Your task to perform on an android device: turn off smart reply in the gmail app Image 0: 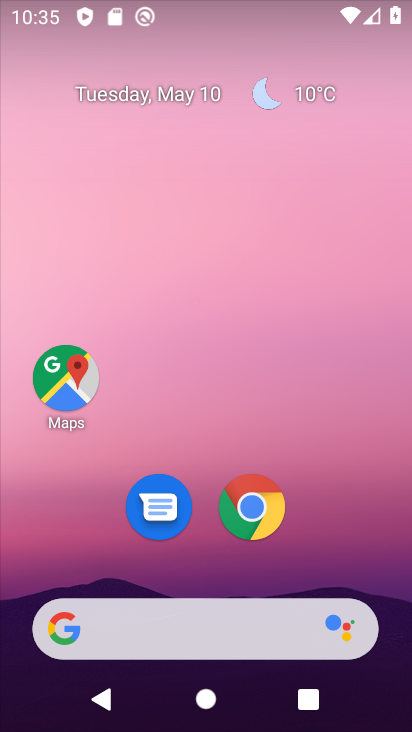
Step 0: drag from (225, 727) to (228, 183)
Your task to perform on an android device: turn off smart reply in the gmail app Image 1: 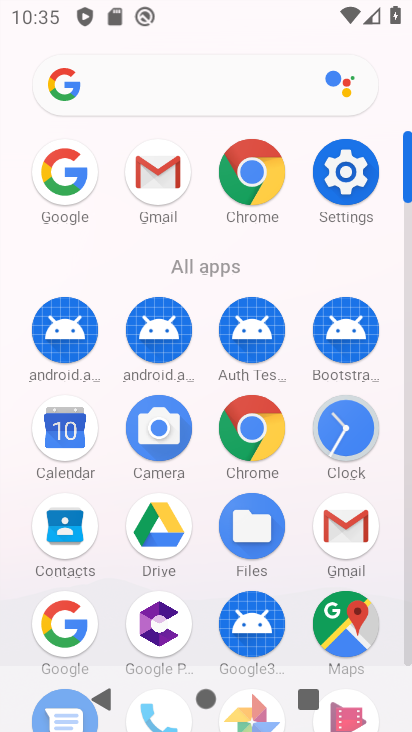
Step 1: click (347, 539)
Your task to perform on an android device: turn off smart reply in the gmail app Image 2: 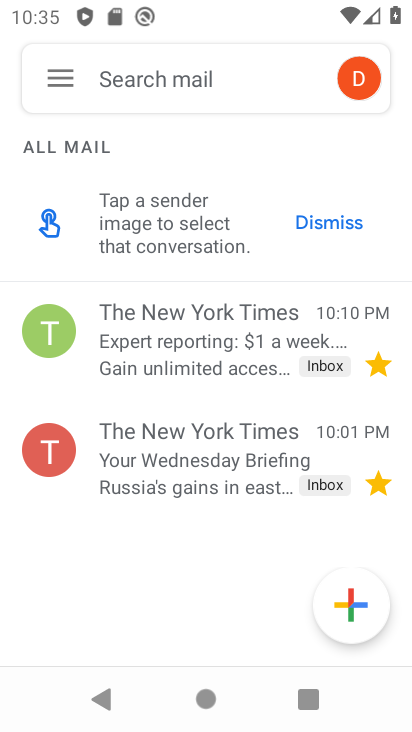
Step 2: click (59, 77)
Your task to perform on an android device: turn off smart reply in the gmail app Image 3: 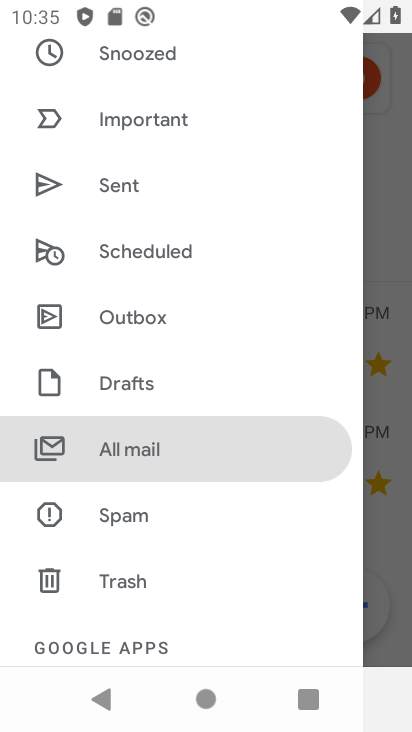
Step 3: drag from (152, 618) to (152, 169)
Your task to perform on an android device: turn off smart reply in the gmail app Image 4: 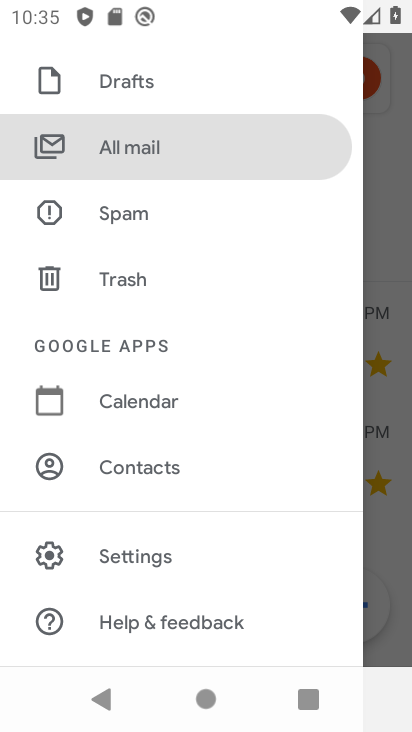
Step 4: click (125, 555)
Your task to perform on an android device: turn off smart reply in the gmail app Image 5: 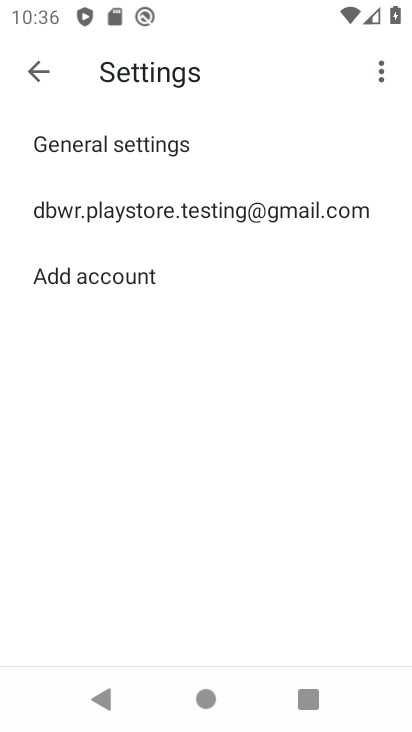
Step 5: click (204, 202)
Your task to perform on an android device: turn off smart reply in the gmail app Image 6: 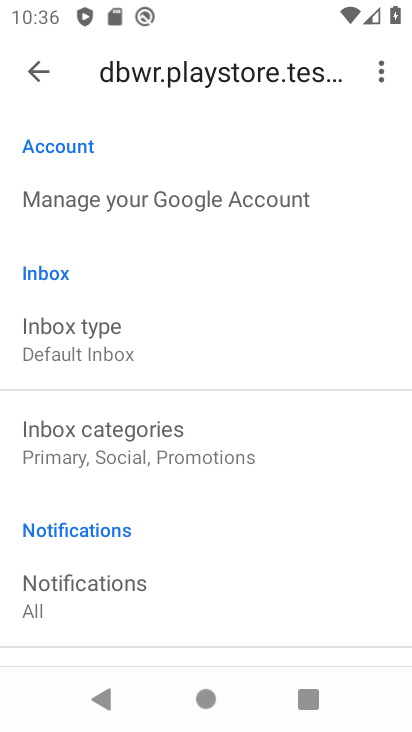
Step 6: drag from (164, 609) to (163, 250)
Your task to perform on an android device: turn off smart reply in the gmail app Image 7: 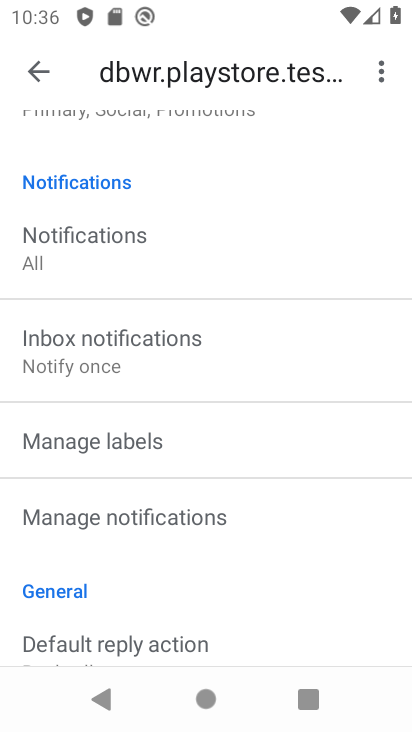
Step 7: drag from (159, 622) to (159, 196)
Your task to perform on an android device: turn off smart reply in the gmail app Image 8: 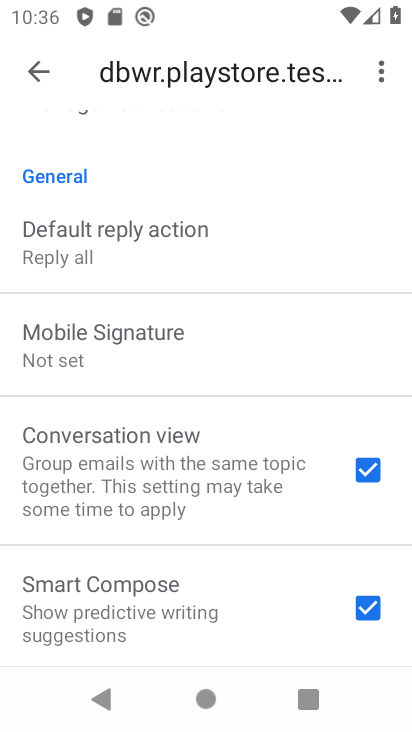
Step 8: drag from (203, 631) to (204, 232)
Your task to perform on an android device: turn off smart reply in the gmail app Image 9: 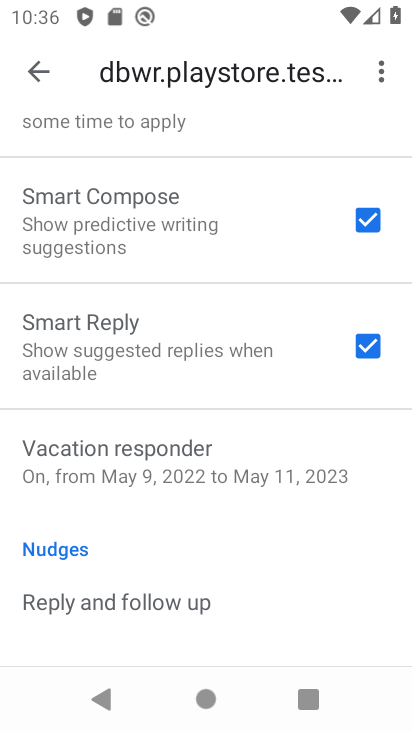
Step 9: click (375, 345)
Your task to perform on an android device: turn off smart reply in the gmail app Image 10: 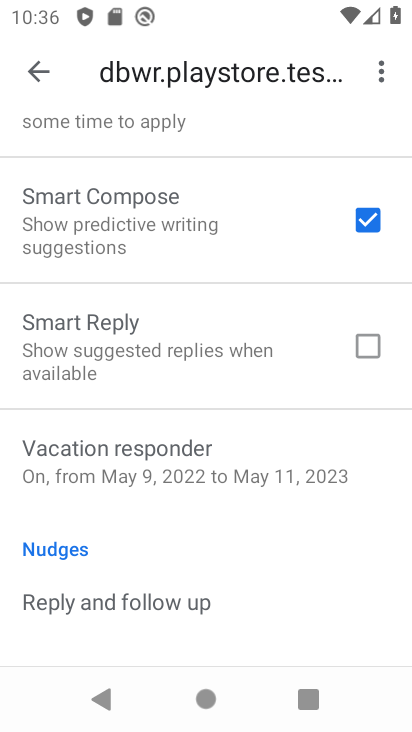
Step 10: task complete